Your task to perform on an android device: change text size in settings app Image 0: 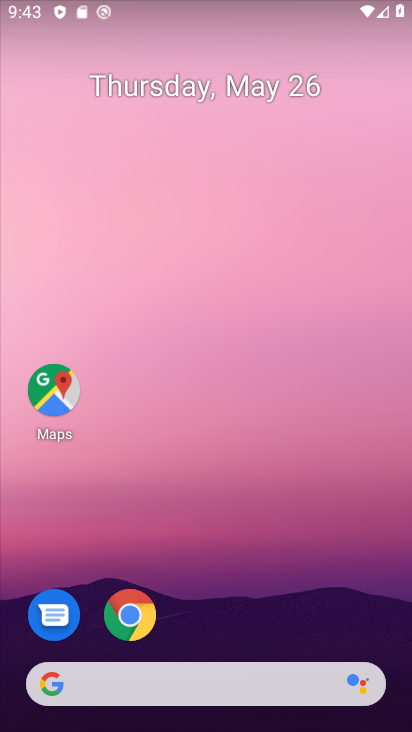
Step 0: press home button
Your task to perform on an android device: change text size in settings app Image 1: 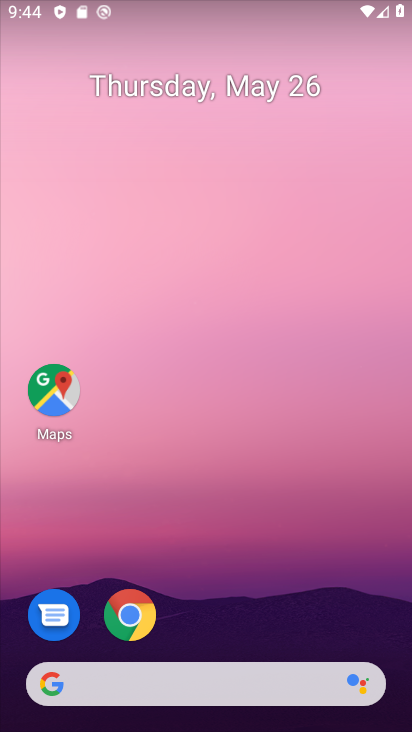
Step 1: drag from (237, 693) to (242, 177)
Your task to perform on an android device: change text size in settings app Image 2: 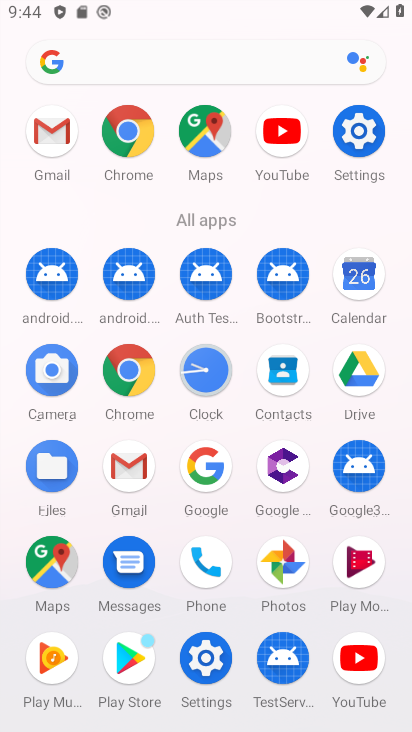
Step 2: click (351, 118)
Your task to perform on an android device: change text size in settings app Image 3: 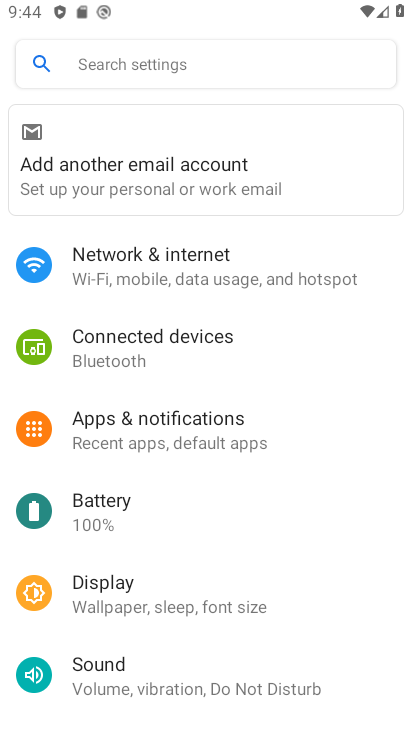
Step 3: click (174, 69)
Your task to perform on an android device: change text size in settings app Image 4: 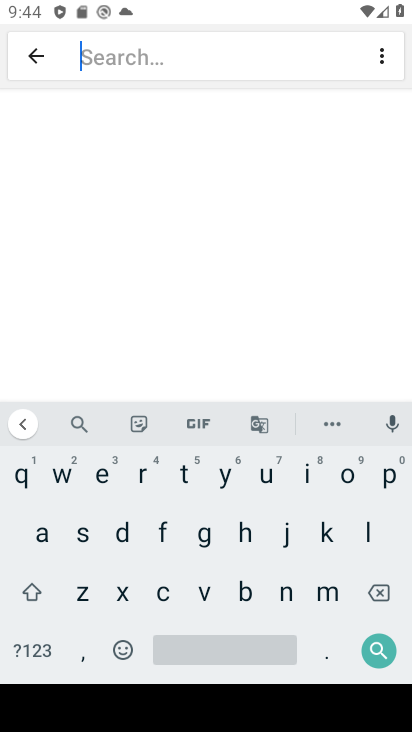
Step 4: click (75, 534)
Your task to perform on an android device: change text size in settings app Image 5: 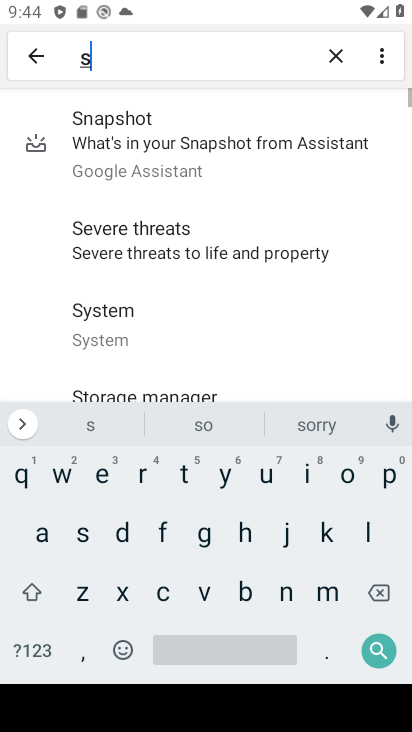
Step 5: click (302, 475)
Your task to perform on an android device: change text size in settings app Image 6: 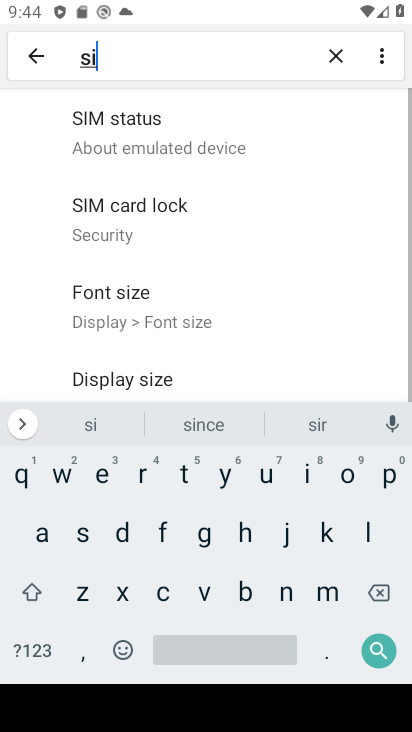
Step 6: click (84, 595)
Your task to perform on an android device: change text size in settings app Image 7: 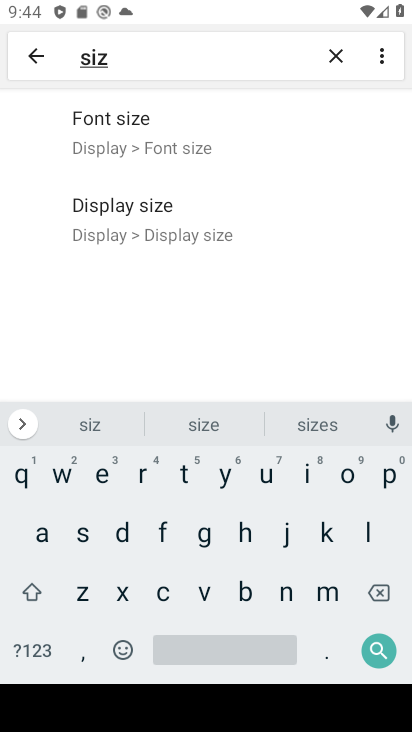
Step 7: click (153, 123)
Your task to perform on an android device: change text size in settings app Image 8: 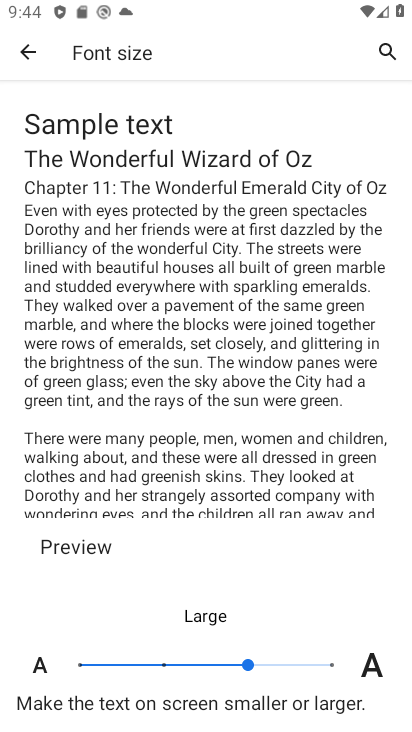
Step 8: click (310, 669)
Your task to perform on an android device: change text size in settings app Image 9: 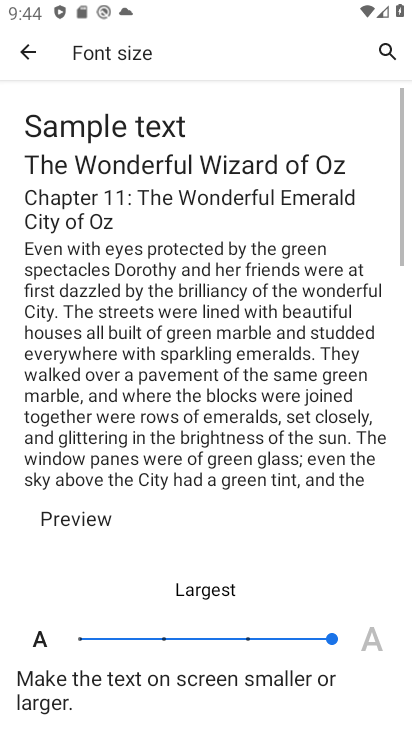
Step 9: task complete